Your task to perform on an android device: open chrome privacy settings Image 0: 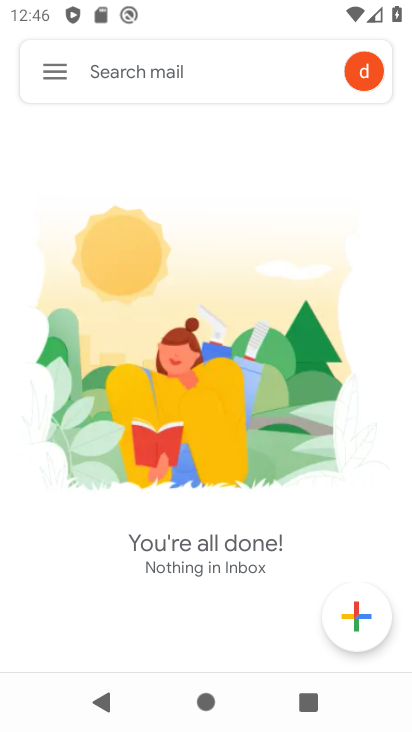
Step 0: press home button
Your task to perform on an android device: open chrome privacy settings Image 1: 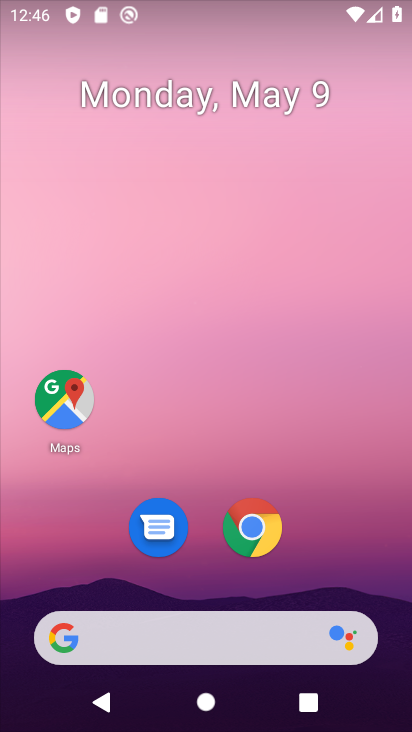
Step 1: click (261, 530)
Your task to perform on an android device: open chrome privacy settings Image 2: 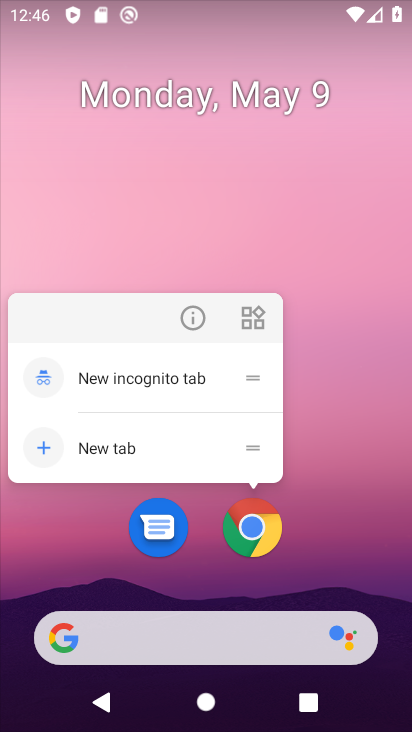
Step 2: click (256, 529)
Your task to perform on an android device: open chrome privacy settings Image 3: 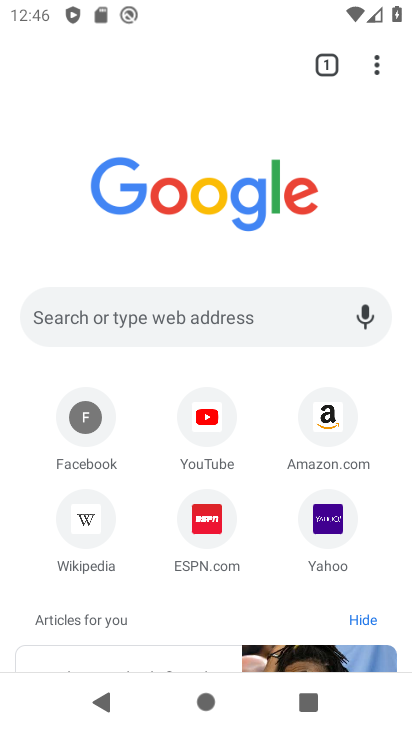
Step 3: click (366, 71)
Your task to perform on an android device: open chrome privacy settings Image 4: 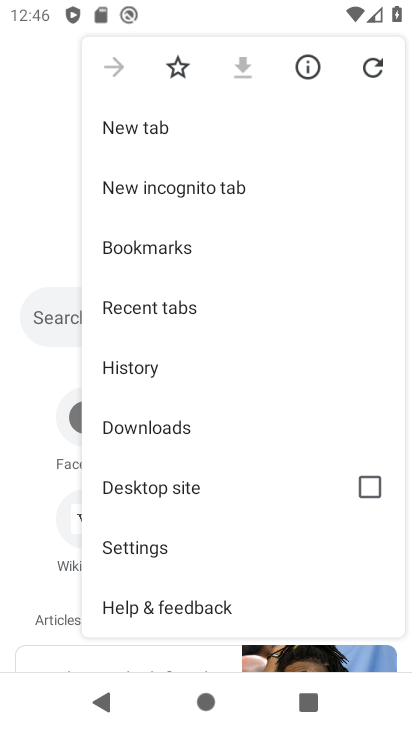
Step 4: click (181, 552)
Your task to perform on an android device: open chrome privacy settings Image 5: 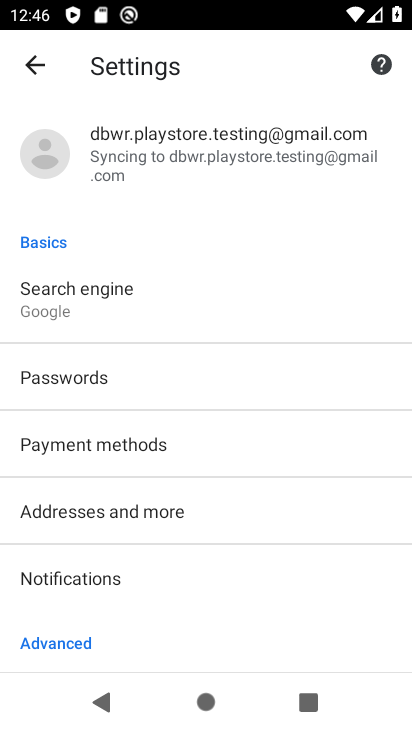
Step 5: drag from (183, 630) to (276, 205)
Your task to perform on an android device: open chrome privacy settings Image 6: 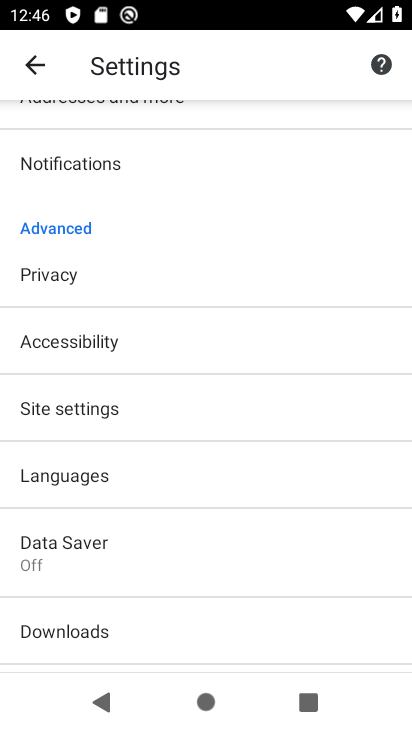
Step 6: click (93, 270)
Your task to perform on an android device: open chrome privacy settings Image 7: 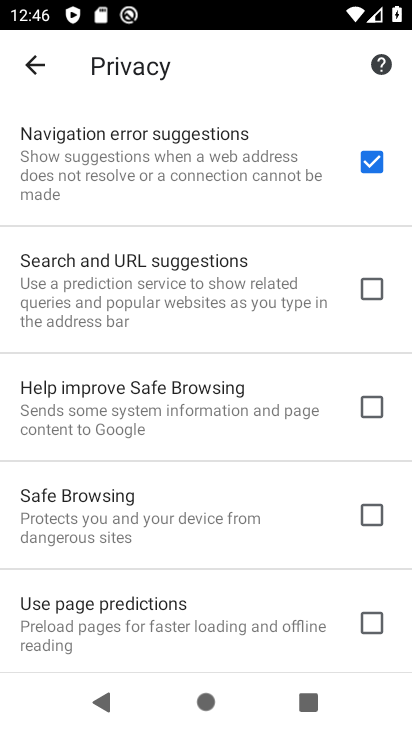
Step 7: task complete